Your task to perform on an android device: create a new album in the google photos Image 0: 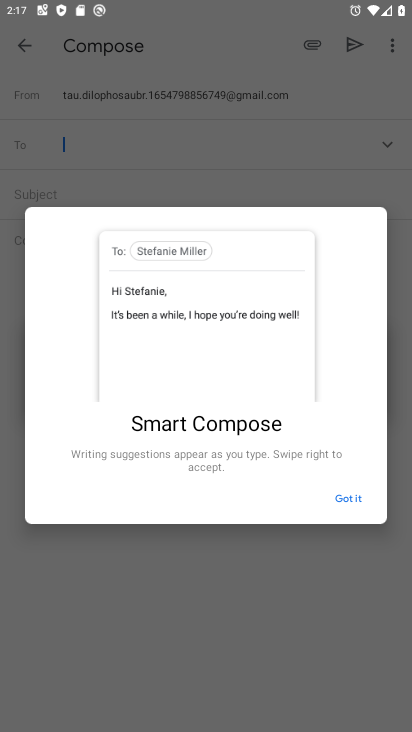
Step 0: press home button
Your task to perform on an android device: create a new album in the google photos Image 1: 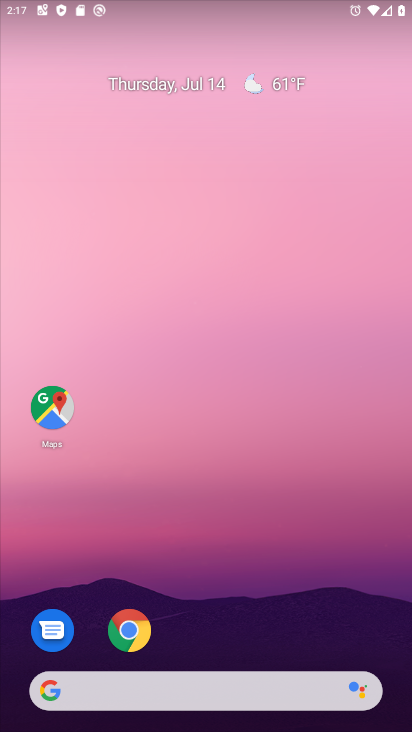
Step 1: drag from (200, 688) to (331, 116)
Your task to perform on an android device: create a new album in the google photos Image 2: 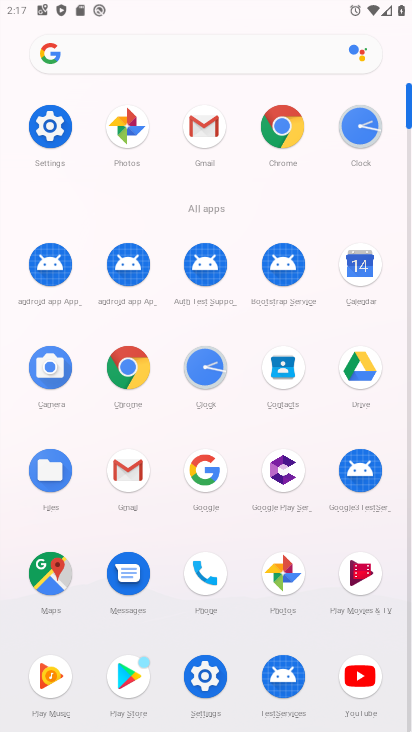
Step 2: click (293, 567)
Your task to perform on an android device: create a new album in the google photos Image 3: 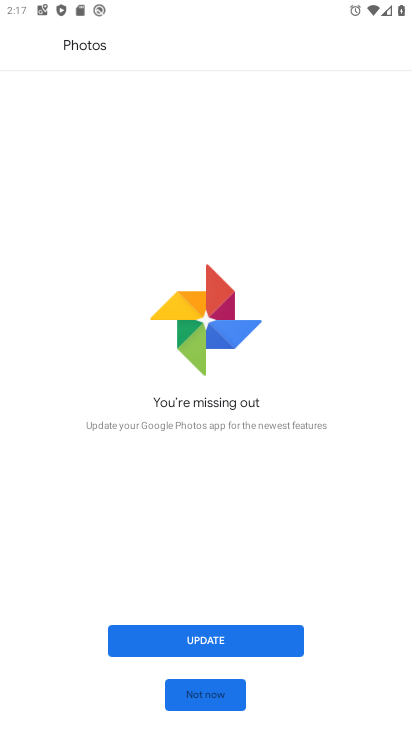
Step 3: click (207, 687)
Your task to perform on an android device: create a new album in the google photos Image 4: 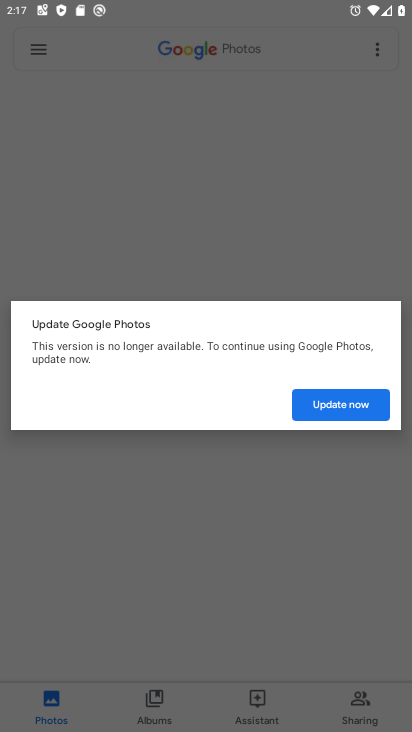
Step 4: click (345, 397)
Your task to perform on an android device: create a new album in the google photos Image 5: 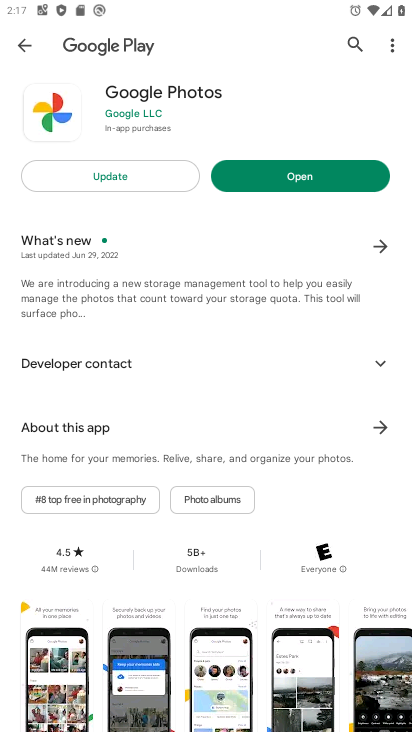
Step 5: click (130, 170)
Your task to perform on an android device: create a new album in the google photos Image 6: 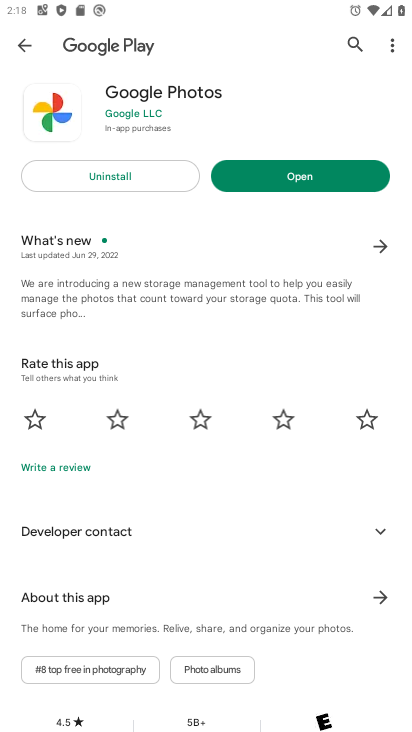
Step 6: click (315, 170)
Your task to perform on an android device: create a new album in the google photos Image 7: 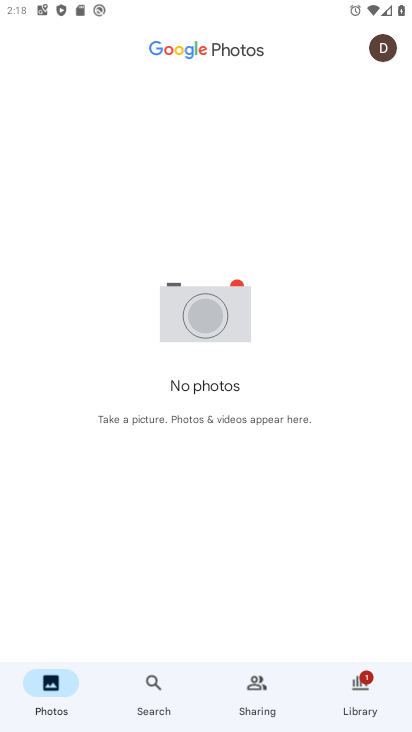
Step 7: click (363, 709)
Your task to perform on an android device: create a new album in the google photos Image 8: 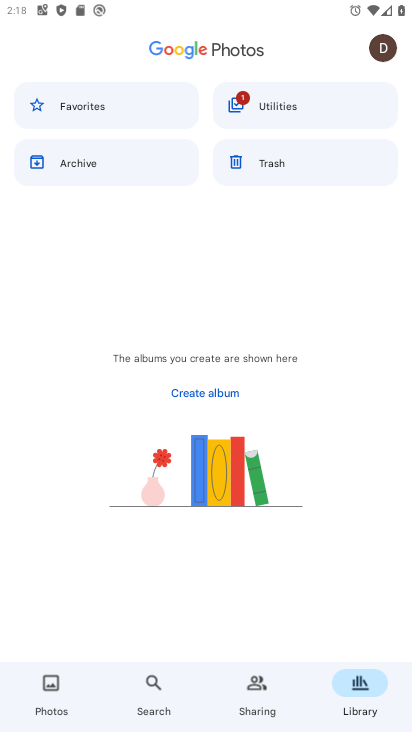
Step 8: task complete